Your task to perform on an android device: open chrome and create a bookmark for the current page Image 0: 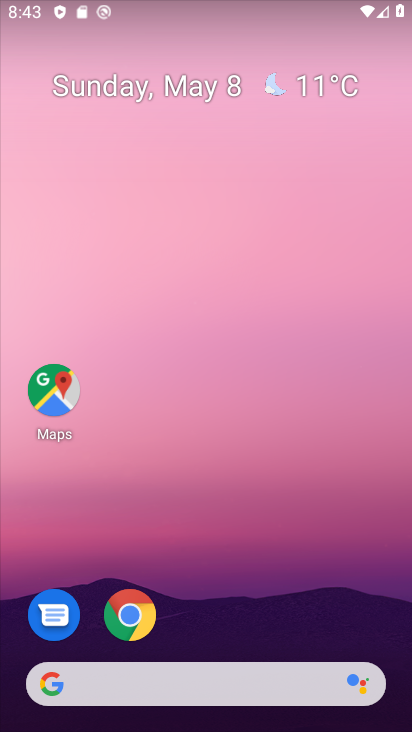
Step 0: drag from (270, 597) to (321, 124)
Your task to perform on an android device: open chrome and create a bookmark for the current page Image 1: 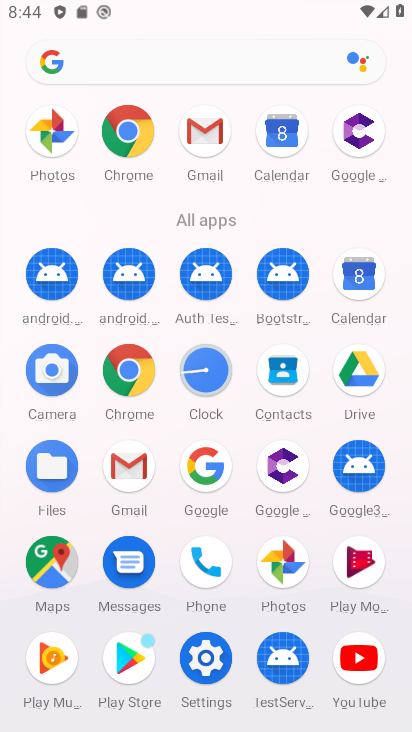
Step 1: click (121, 380)
Your task to perform on an android device: open chrome and create a bookmark for the current page Image 2: 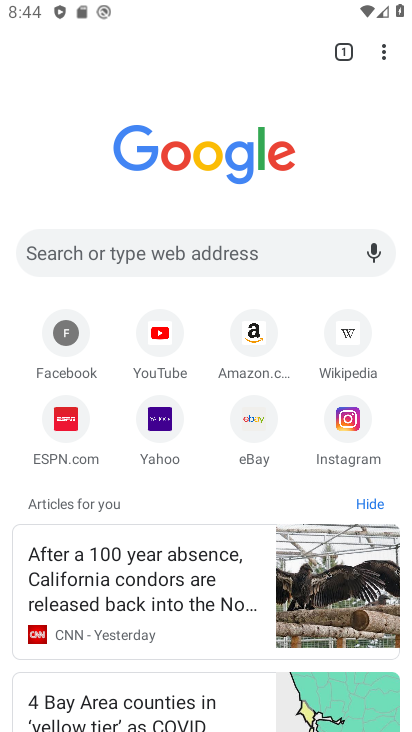
Step 2: click (382, 51)
Your task to perform on an android device: open chrome and create a bookmark for the current page Image 3: 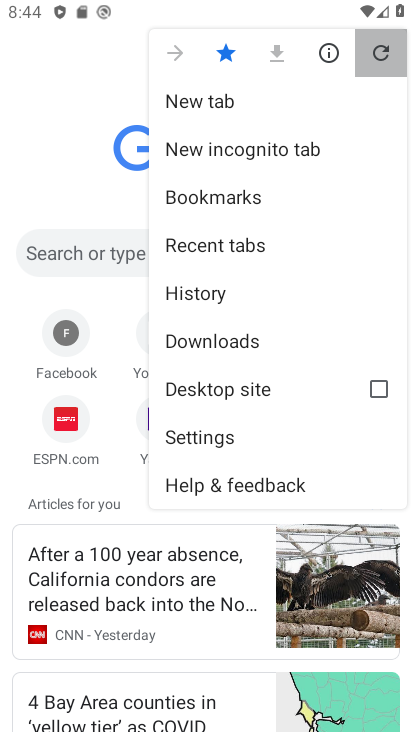
Step 3: task complete